Your task to perform on an android device: star an email in the gmail app Image 0: 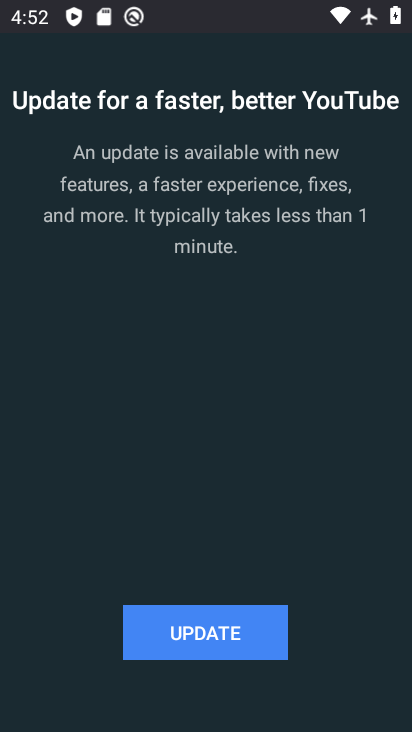
Step 0: drag from (351, 689) to (250, 259)
Your task to perform on an android device: star an email in the gmail app Image 1: 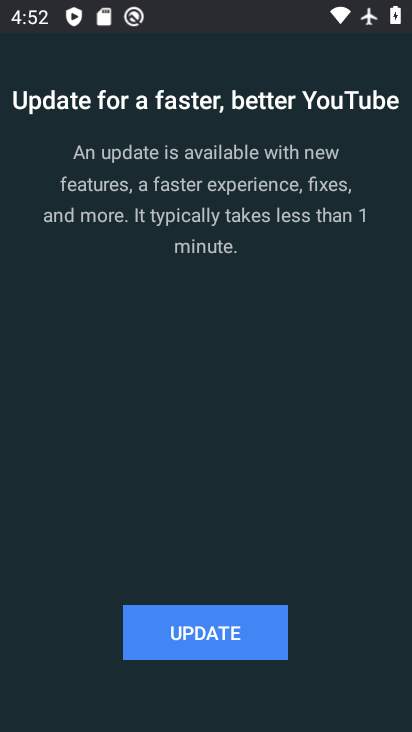
Step 1: press back button
Your task to perform on an android device: star an email in the gmail app Image 2: 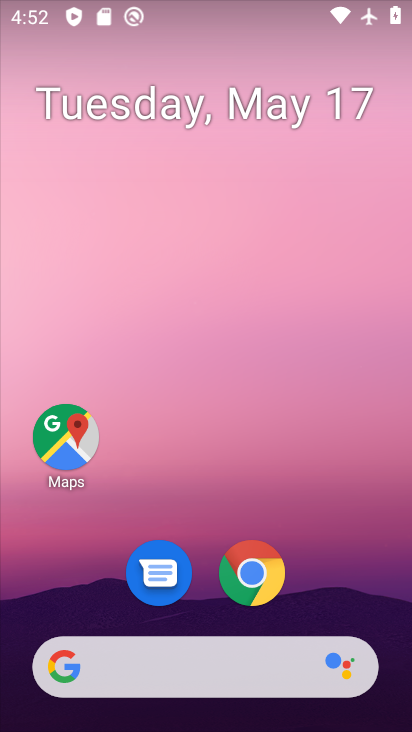
Step 2: drag from (386, 632) to (136, 264)
Your task to perform on an android device: star an email in the gmail app Image 3: 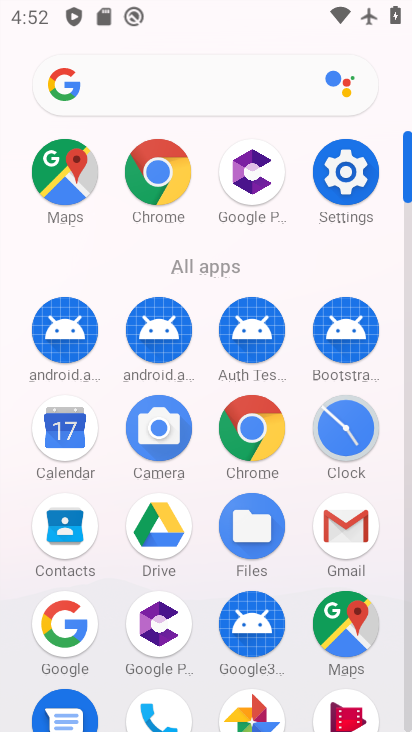
Step 3: click (337, 521)
Your task to perform on an android device: star an email in the gmail app Image 4: 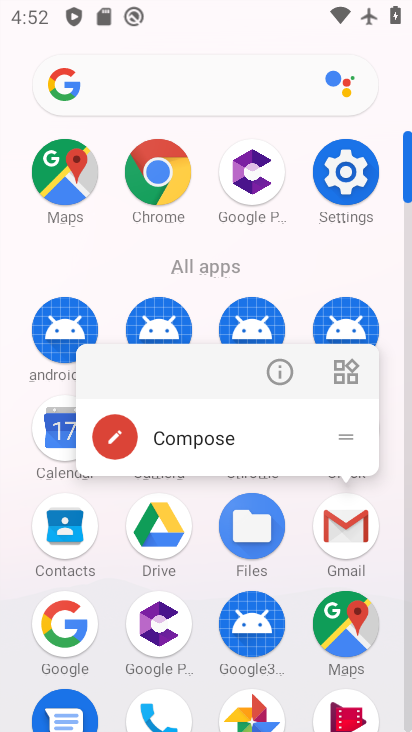
Step 4: click (346, 533)
Your task to perform on an android device: star an email in the gmail app Image 5: 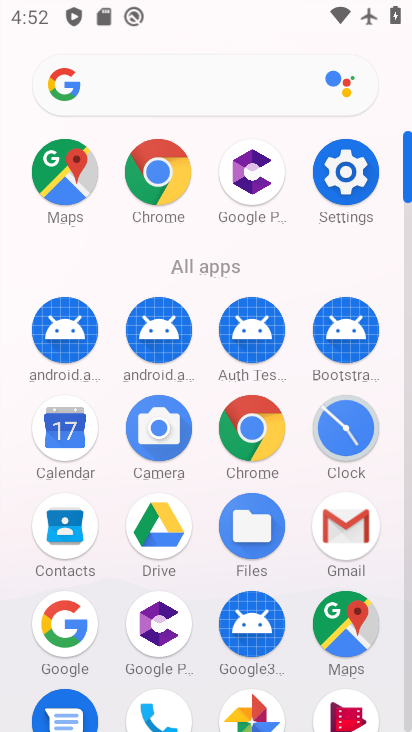
Step 5: click (346, 533)
Your task to perform on an android device: star an email in the gmail app Image 6: 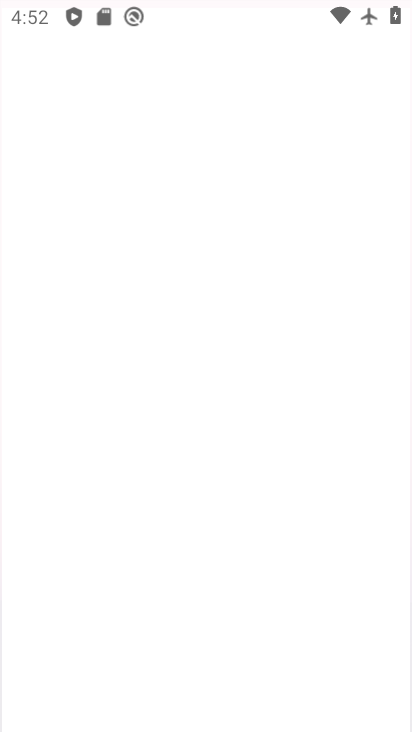
Step 6: click (351, 529)
Your task to perform on an android device: star an email in the gmail app Image 7: 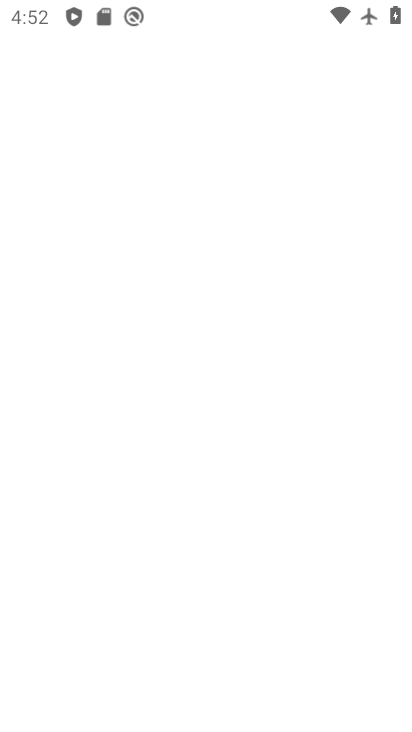
Step 7: click (352, 527)
Your task to perform on an android device: star an email in the gmail app Image 8: 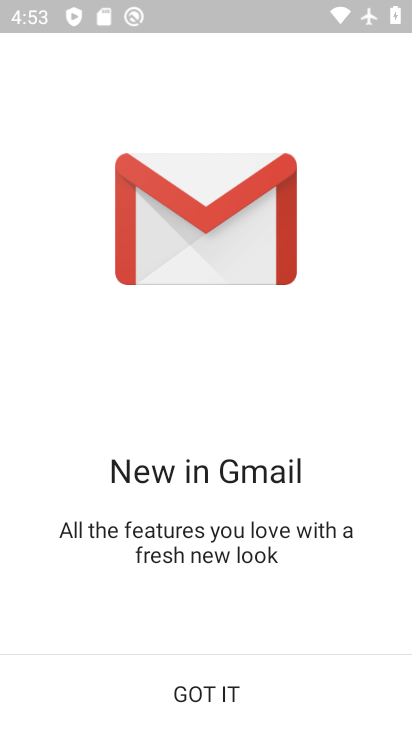
Step 8: click (208, 696)
Your task to perform on an android device: star an email in the gmail app Image 9: 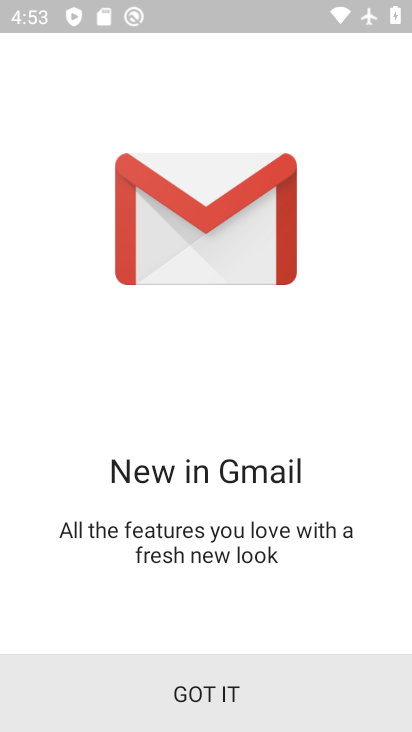
Step 9: click (211, 694)
Your task to perform on an android device: star an email in the gmail app Image 10: 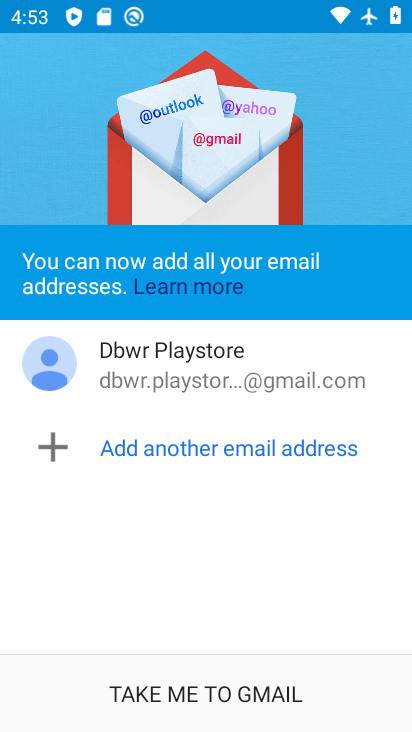
Step 10: click (215, 689)
Your task to perform on an android device: star an email in the gmail app Image 11: 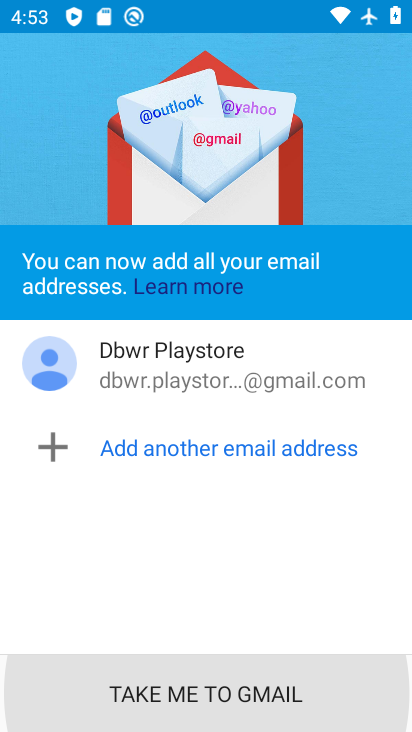
Step 11: click (215, 689)
Your task to perform on an android device: star an email in the gmail app Image 12: 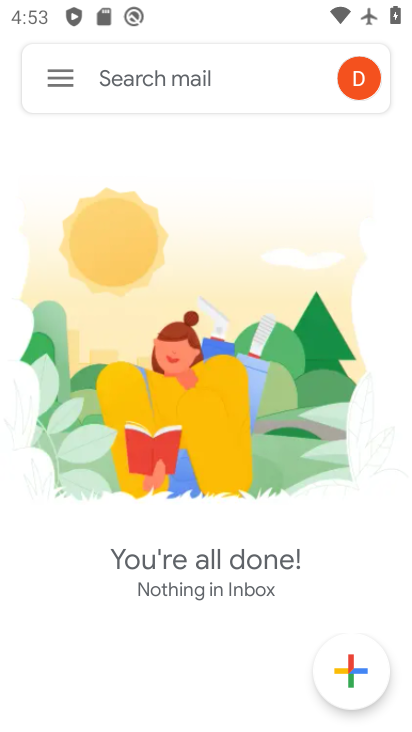
Step 12: click (56, 80)
Your task to perform on an android device: star an email in the gmail app Image 13: 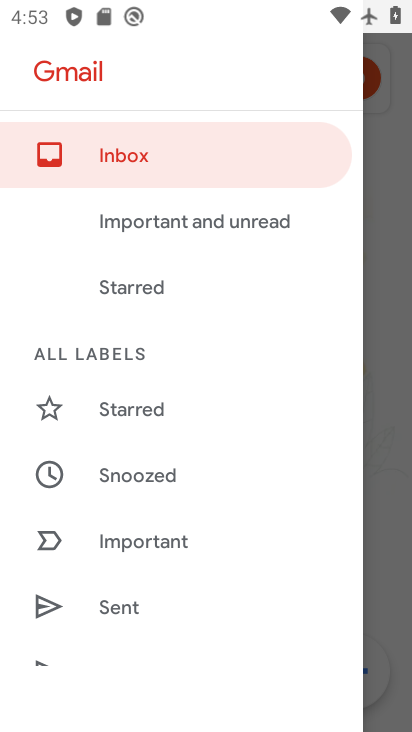
Step 13: drag from (137, 584) to (104, 107)
Your task to perform on an android device: star an email in the gmail app Image 14: 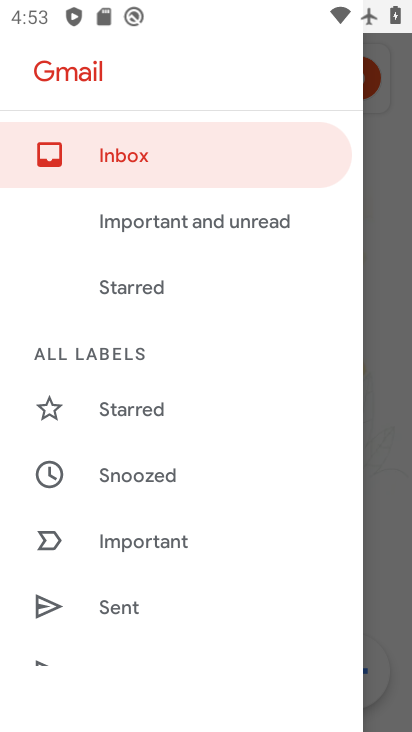
Step 14: drag from (168, 541) to (145, 227)
Your task to perform on an android device: star an email in the gmail app Image 15: 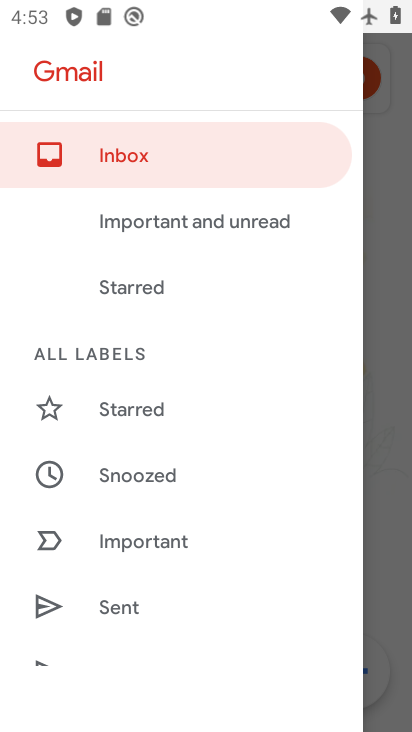
Step 15: drag from (136, 513) to (90, 232)
Your task to perform on an android device: star an email in the gmail app Image 16: 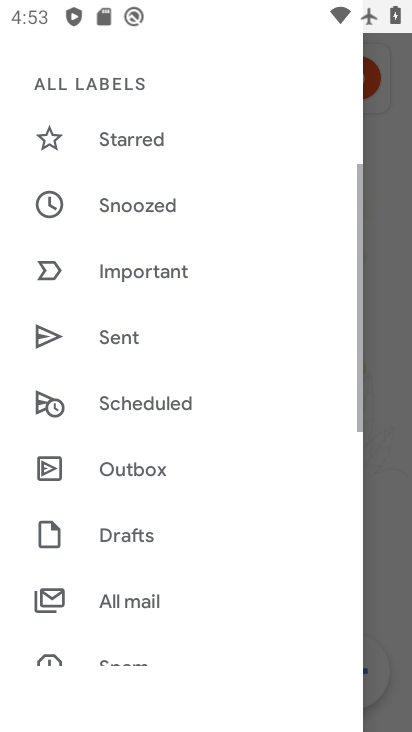
Step 16: drag from (131, 522) to (133, 225)
Your task to perform on an android device: star an email in the gmail app Image 17: 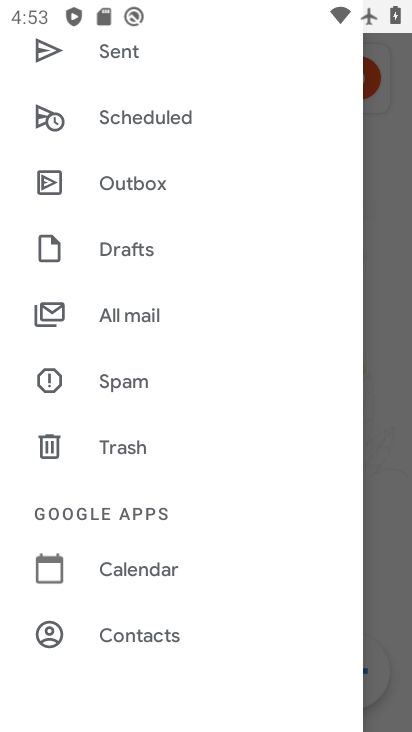
Step 17: click (123, 310)
Your task to perform on an android device: star an email in the gmail app Image 18: 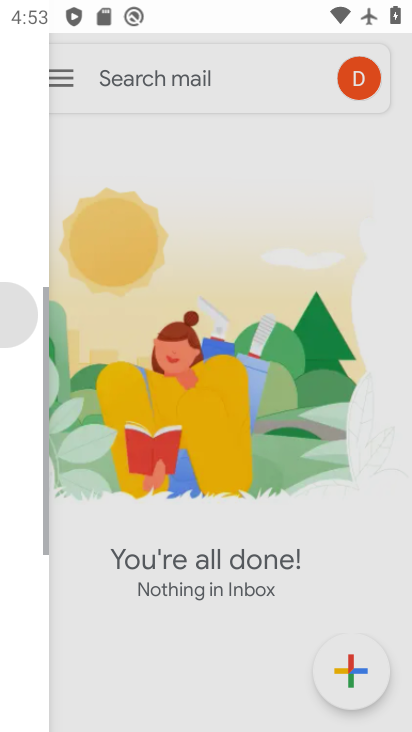
Step 18: click (124, 309)
Your task to perform on an android device: star an email in the gmail app Image 19: 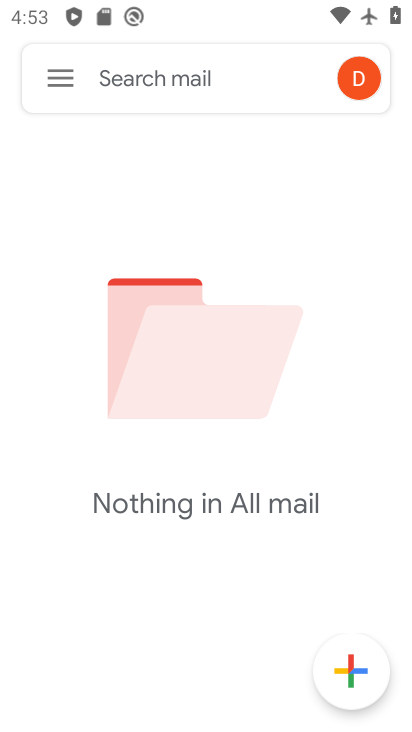
Step 19: click (44, 75)
Your task to perform on an android device: star an email in the gmail app Image 20: 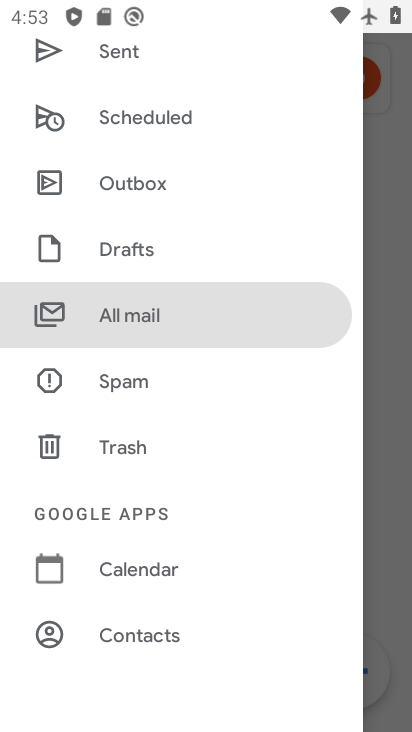
Step 20: task complete